Your task to perform on an android device: Show me productivity apps on the Play Store Image 0: 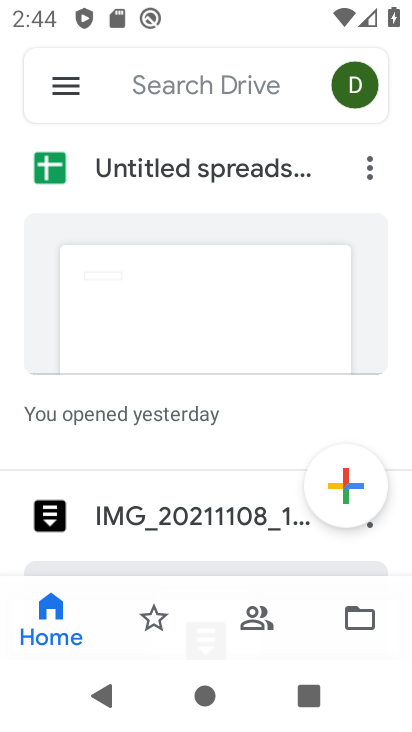
Step 0: press home button
Your task to perform on an android device: Show me productivity apps on the Play Store Image 1: 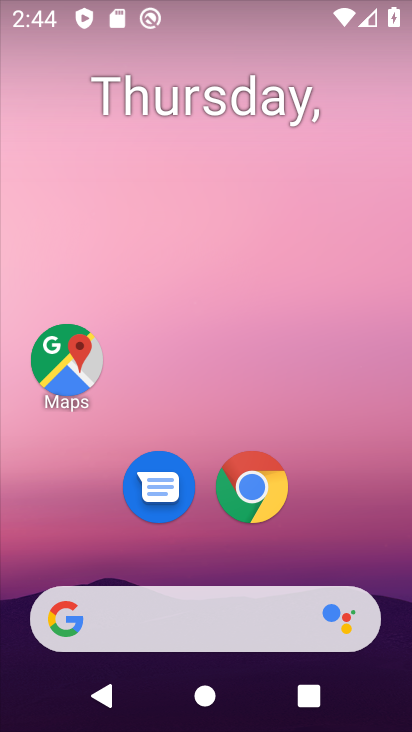
Step 1: drag from (328, 547) to (333, 115)
Your task to perform on an android device: Show me productivity apps on the Play Store Image 2: 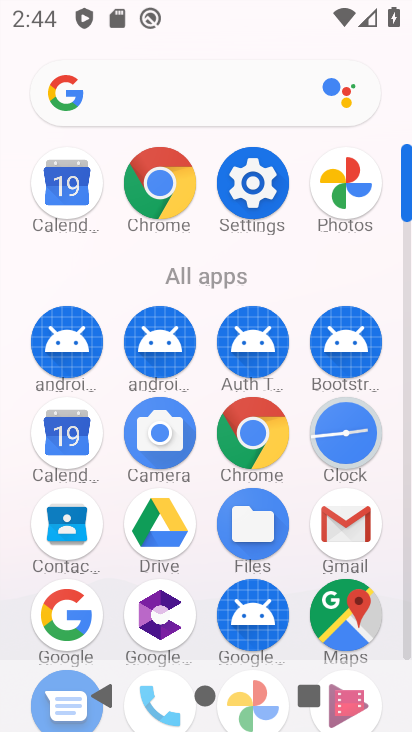
Step 2: drag from (401, 550) to (403, 198)
Your task to perform on an android device: Show me productivity apps on the Play Store Image 3: 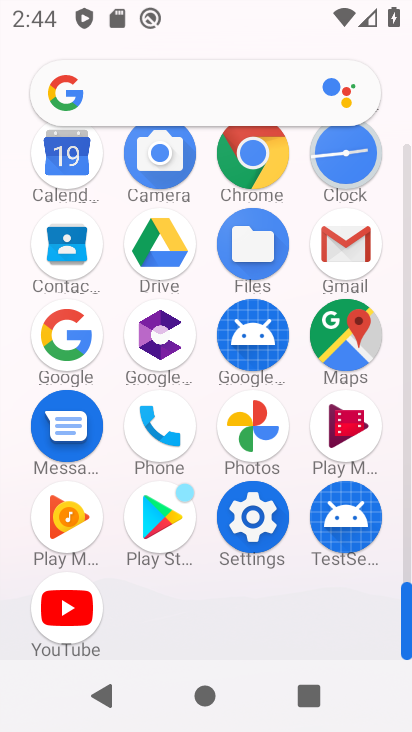
Step 3: click (154, 523)
Your task to perform on an android device: Show me productivity apps on the Play Store Image 4: 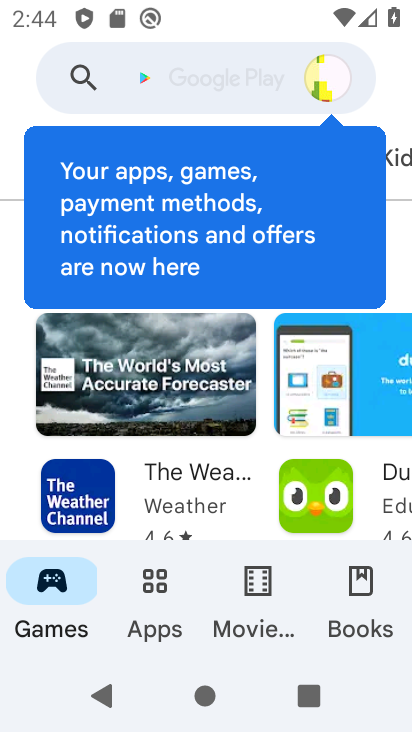
Step 4: click (202, 81)
Your task to perform on an android device: Show me productivity apps on the Play Store Image 5: 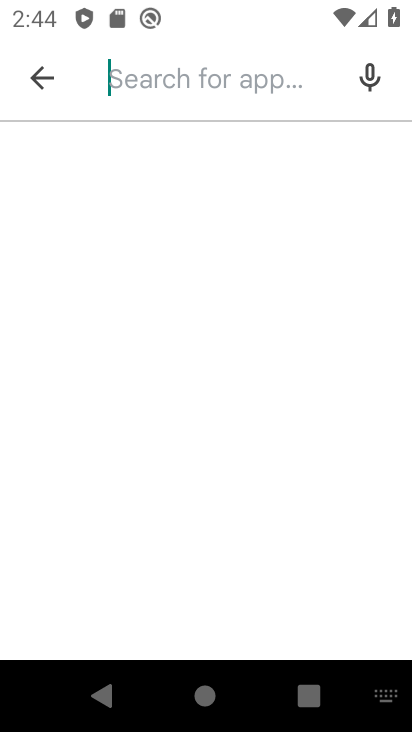
Step 5: type "productivity apss"
Your task to perform on an android device: Show me productivity apps on the Play Store Image 6: 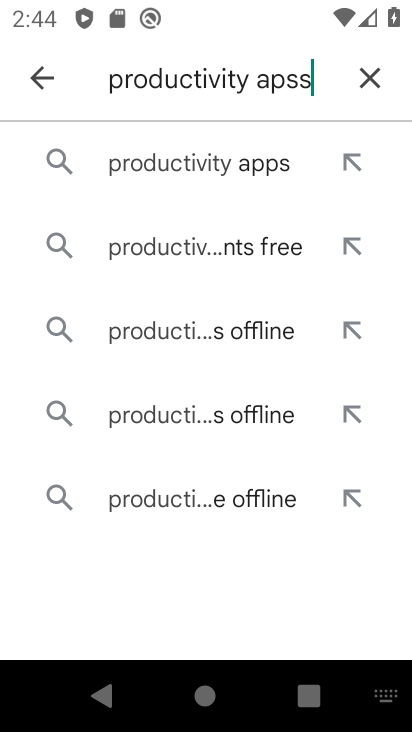
Step 6: click (154, 171)
Your task to perform on an android device: Show me productivity apps on the Play Store Image 7: 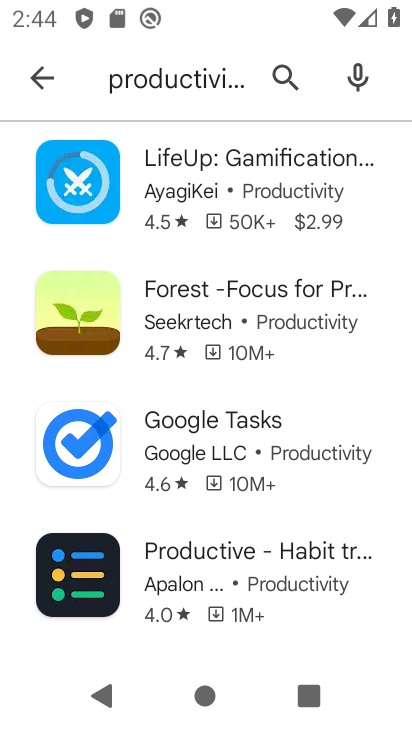
Step 7: task complete